Your task to perform on an android device: Go to ESPN.com Image 0: 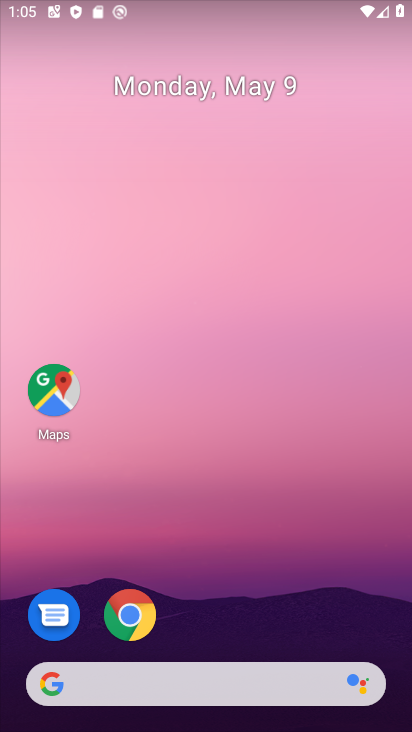
Step 0: click (132, 615)
Your task to perform on an android device: Go to ESPN.com Image 1: 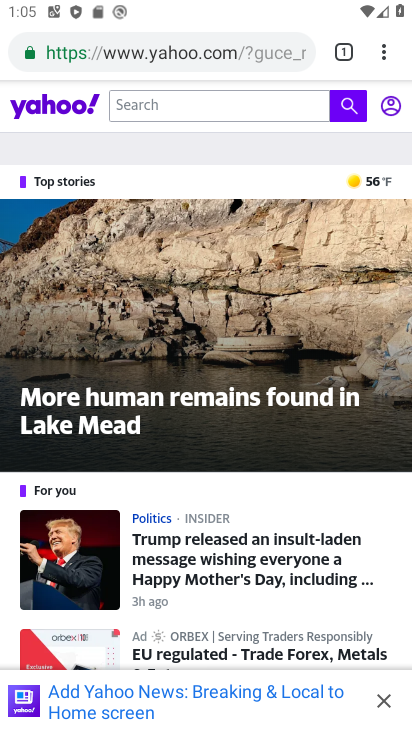
Step 1: click (185, 103)
Your task to perform on an android device: Go to ESPN.com Image 2: 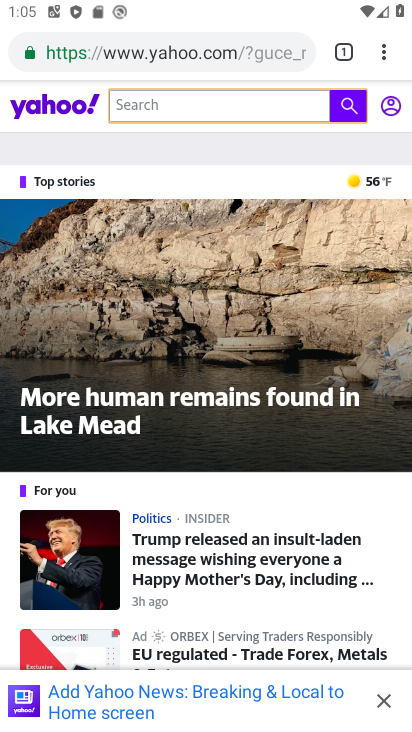
Step 2: click (269, 42)
Your task to perform on an android device: Go to ESPN.com Image 3: 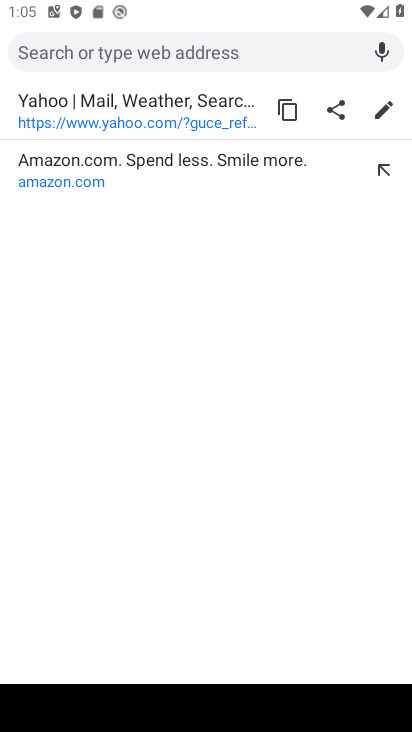
Step 3: type "ESPN.com"
Your task to perform on an android device: Go to ESPN.com Image 4: 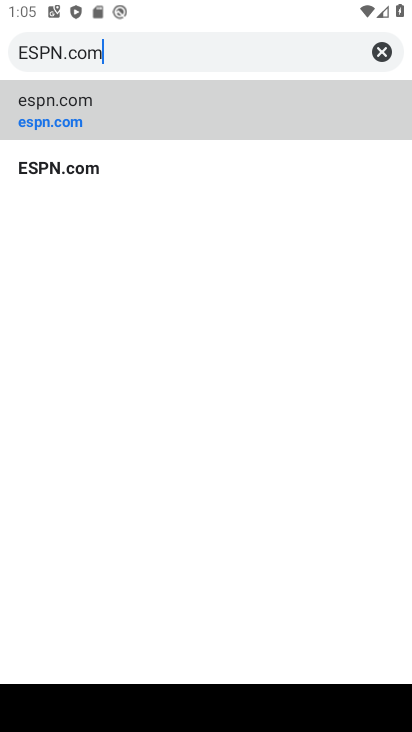
Step 4: click (84, 169)
Your task to perform on an android device: Go to ESPN.com Image 5: 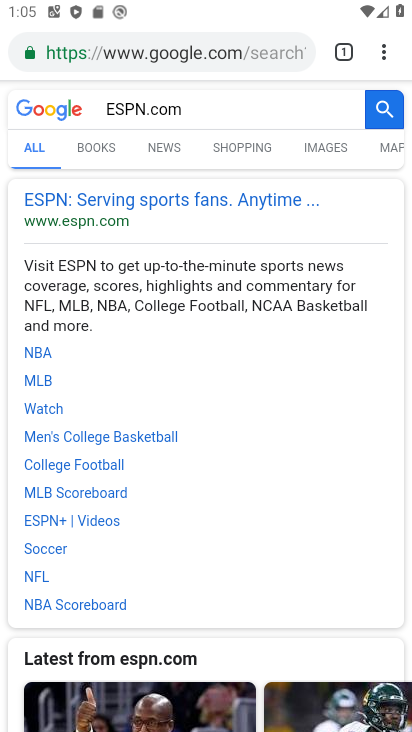
Step 5: click (84, 200)
Your task to perform on an android device: Go to ESPN.com Image 6: 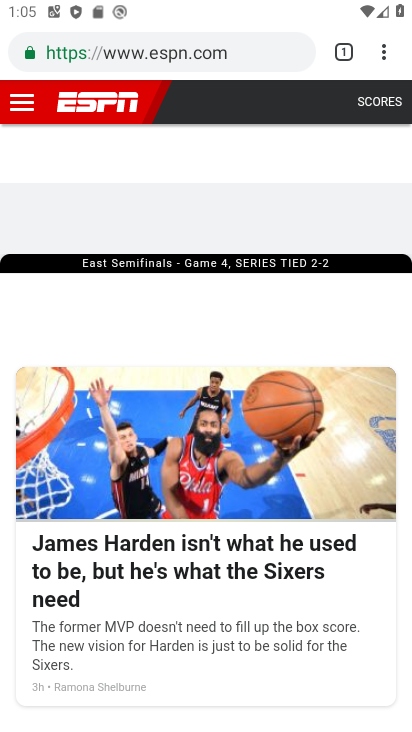
Step 6: task complete